Your task to perform on an android device: Go to display settings Image 0: 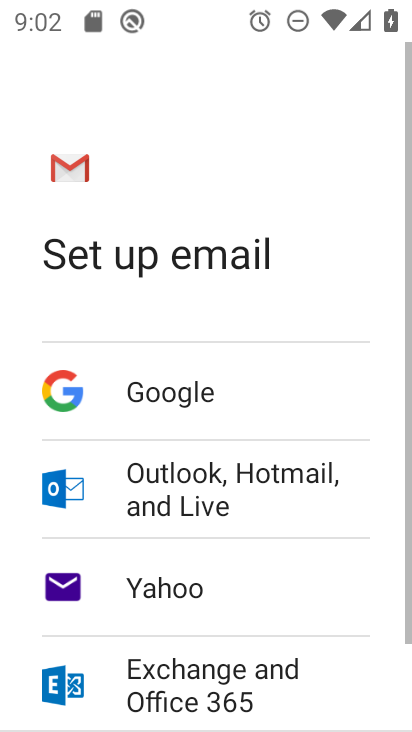
Step 0: press home button
Your task to perform on an android device: Go to display settings Image 1: 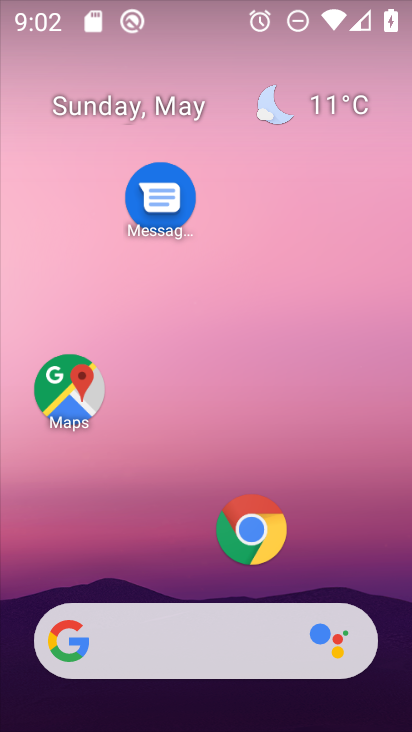
Step 1: drag from (192, 577) to (246, 78)
Your task to perform on an android device: Go to display settings Image 2: 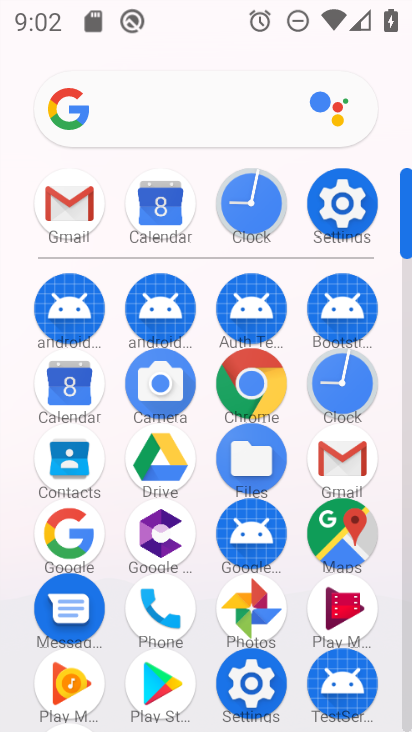
Step 2: click (341, 195)
Your task to perform on an android device: Go to display settings Image 3: 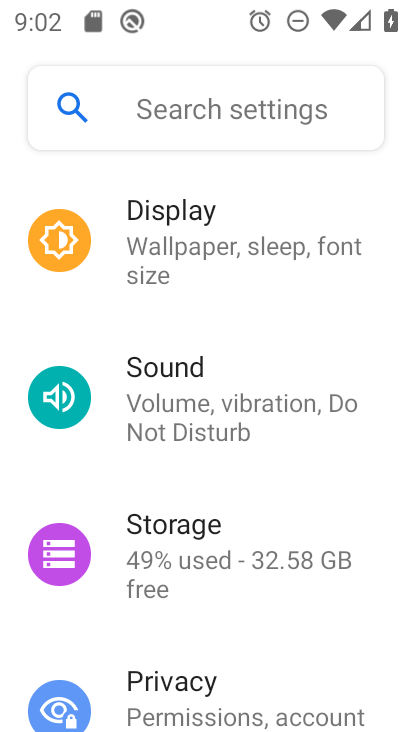
Step 3: click (197, 258)
Your task to perform on an android device: Go to display settings Image 4: 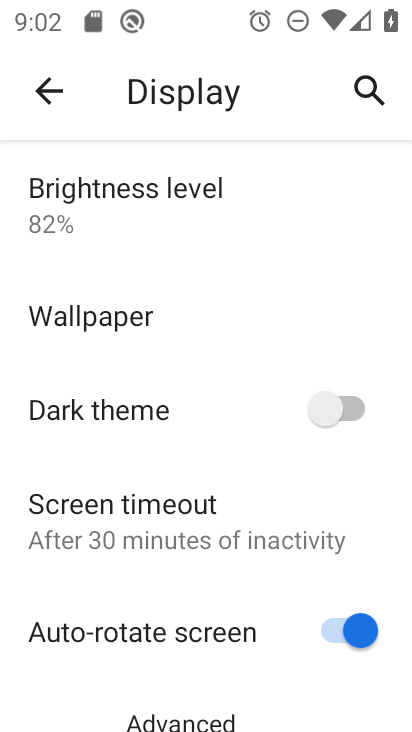
Step 4: drag from (173, 612) to (229, 228)
Your task to perform on an android device: Go to display settings Image 5: 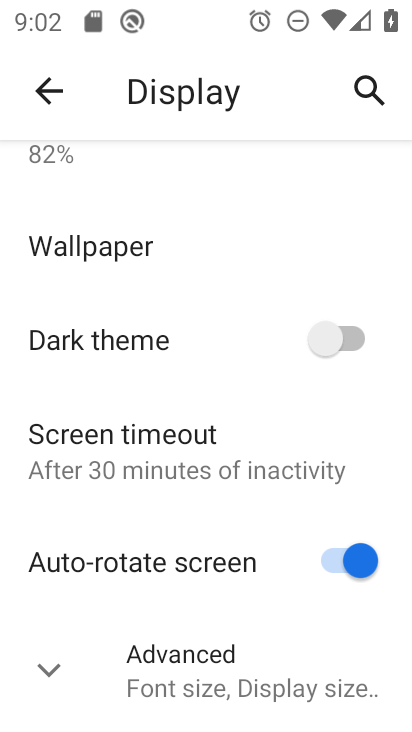
Step 5: click (38, 661)
Your task to perform on an android device: Go to display settings Image 6: 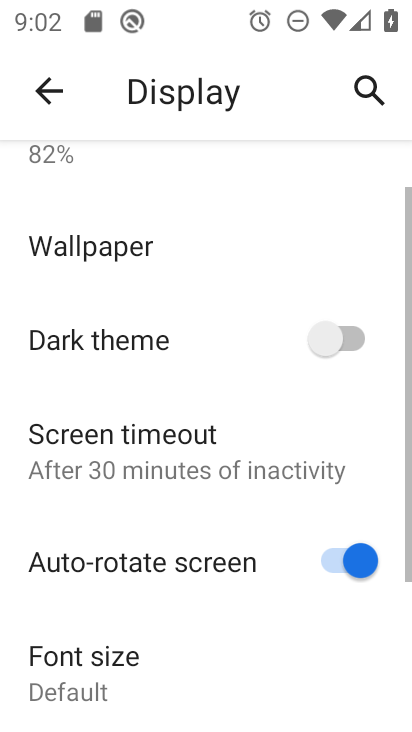
Step 6: task complete